Your task to perform on an android device: Go to battery settings Image 0: 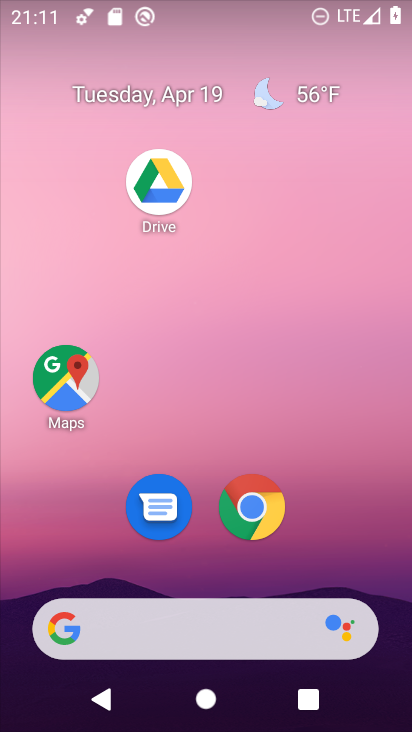
Step 0: drag from (307, 140) to (300, 100)
Your task to perform on an android device: Go to battery settings Image 1: 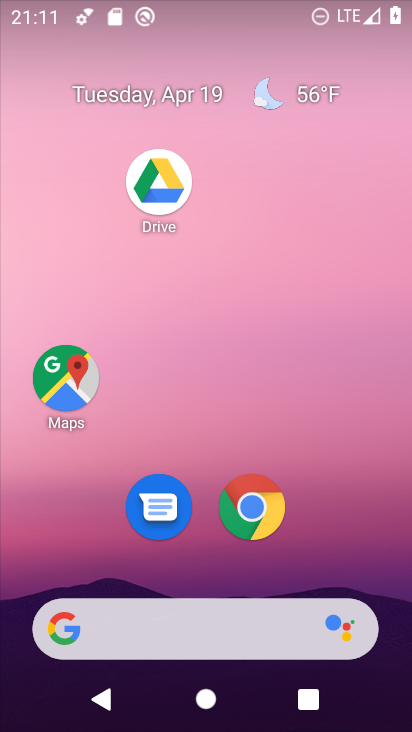
Step 1: drag from (325, 525) to (311, 61)
Your task to perform on an android device: Go to battery settings Image 2: 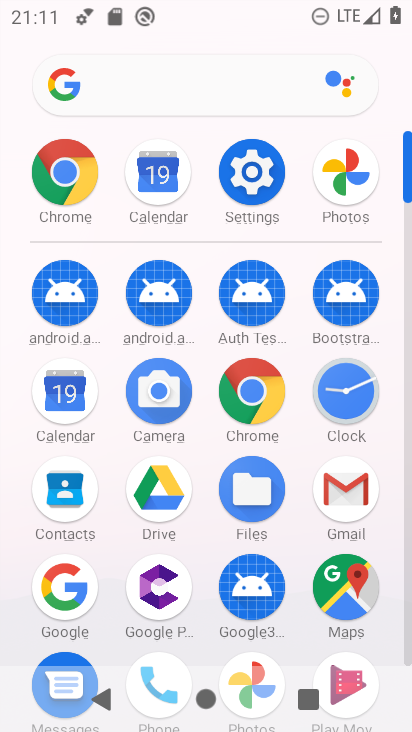
Step 2: click (264, 168)
Your task to perform on an android device: Go to battery settings Image 3: 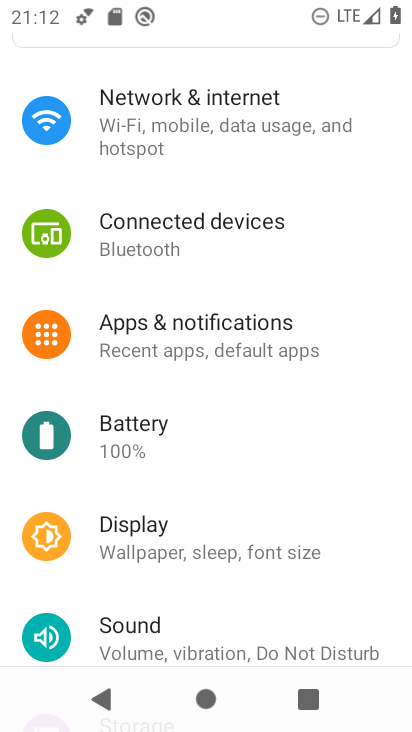
Step 3: click (248, 435)
Your task to perform on an android device: Go to battery settings Image 4: 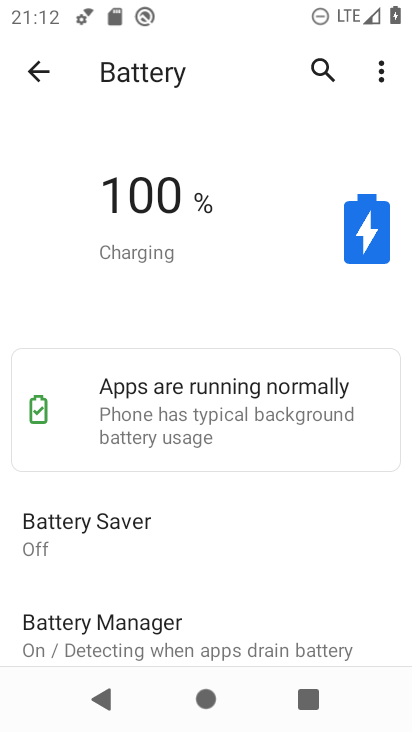
Step 4: task complete